Your task to perform on an android device: check battery use Image 0: 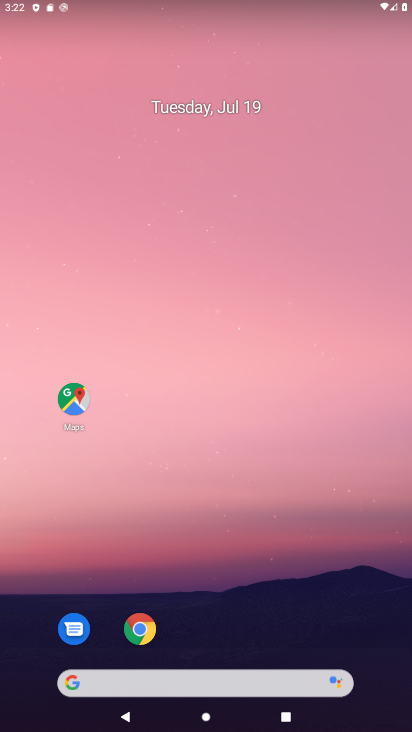
Step 0: drag from (298, 340) to (277, 10)
Your task to perform on an android device: check battery use Image 1: 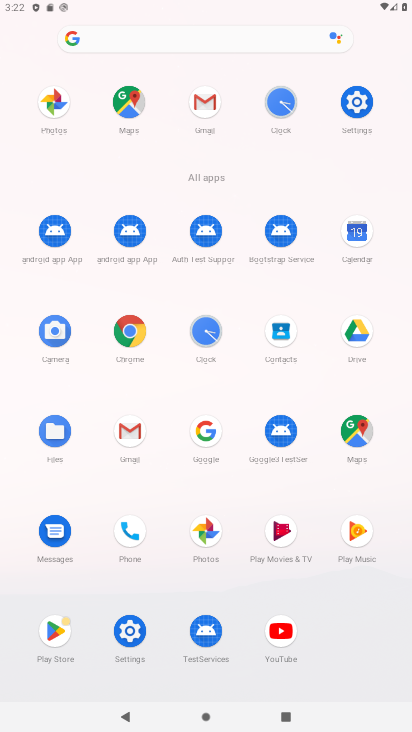
Step 1: click (362, 105)
Your task to perform on an android device: check battery use Image 2: 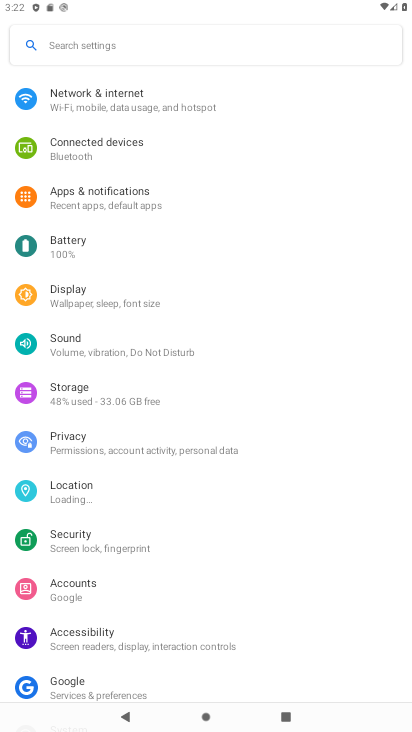
Step 2: click (61, 235)
Your task to perform on an android device: check battery use Image 3: 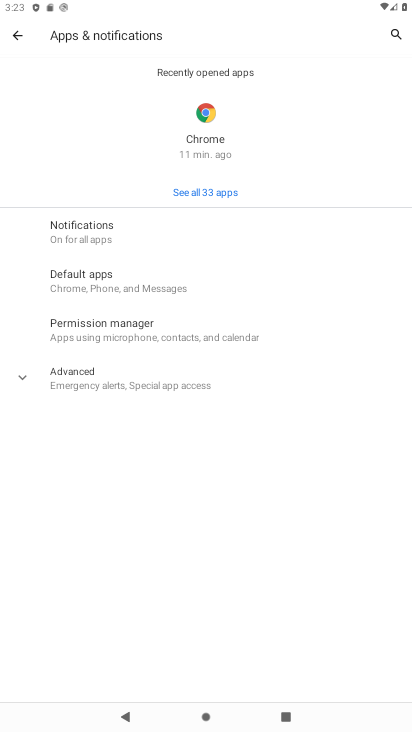
Step 3: click (11, 26)
Your task to perform on an android device: check battery use Image 4: 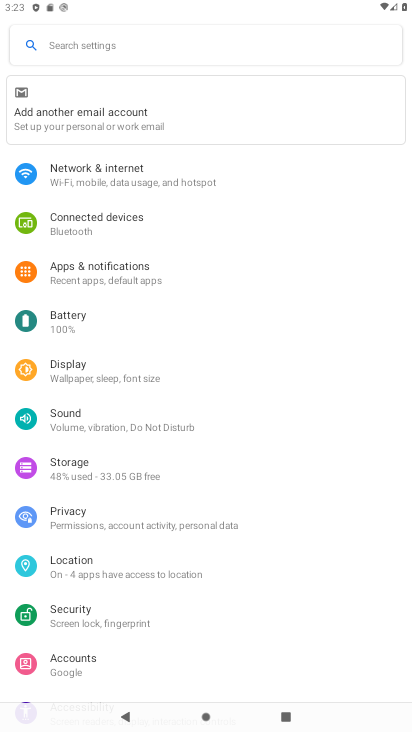
Step 4: click (74, 325)
Your task to perform on an android device: check battery use Image 5: 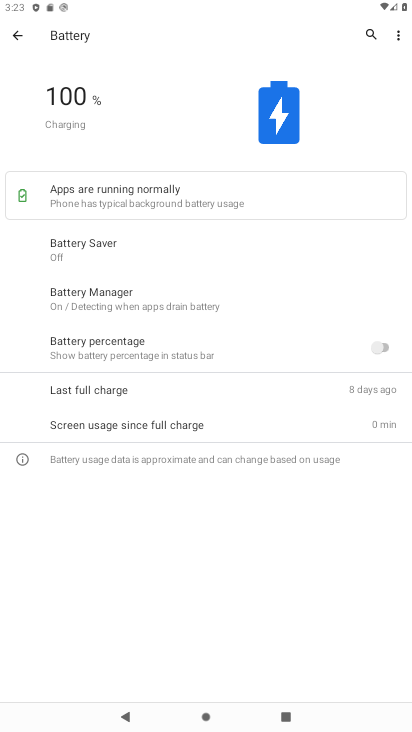
Step 5: click (391, 30)
Your task to perform on an android device: check battery use Image 6: 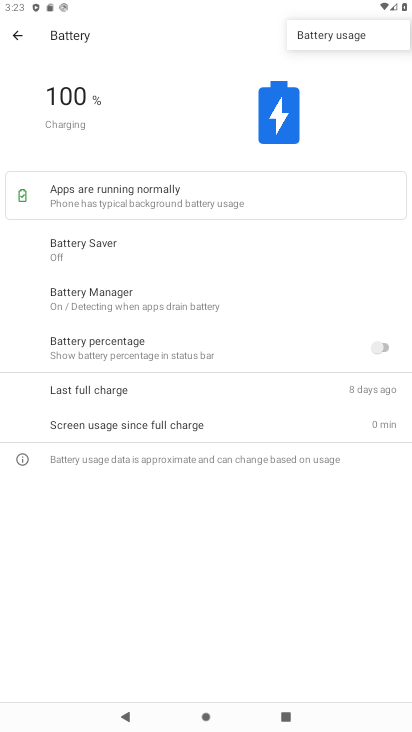
Step 6: click (343, 38)
Your task to perform on an android device: check battery use Image 7: 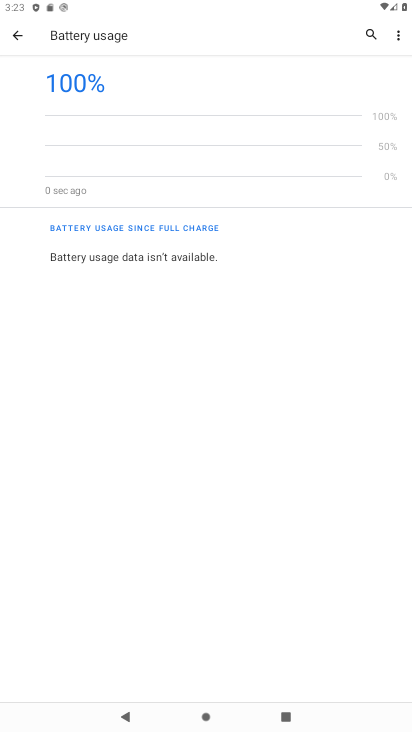
Step 7: task complete